Your task to perform on an android device: delete the emails in spam in the gmail app Image 0: 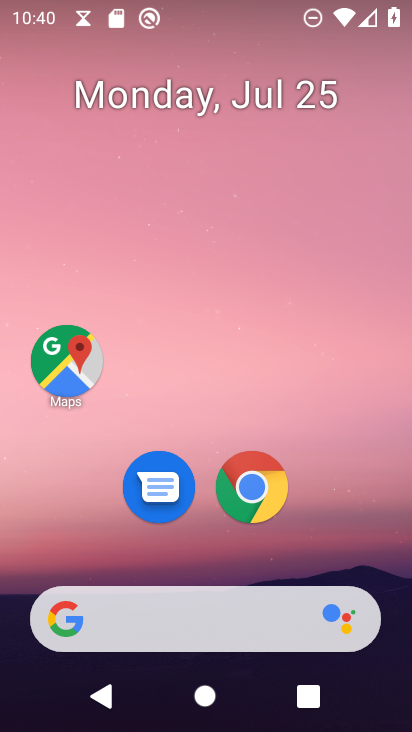
Step 0: drag from (206, 555) to (253, 8)
Your task to perform on an android device: delete the emails in spam in the gmail app Image 1: 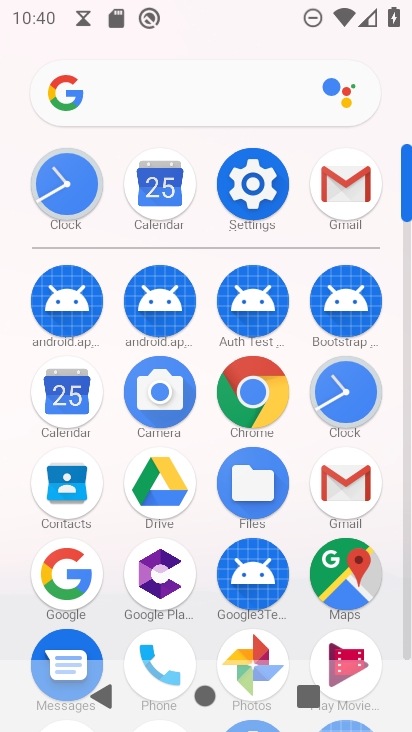
Step 1: click (347, 173)
Your task to perform on an android device: delete the emails in spam in the gmail app Image 2: 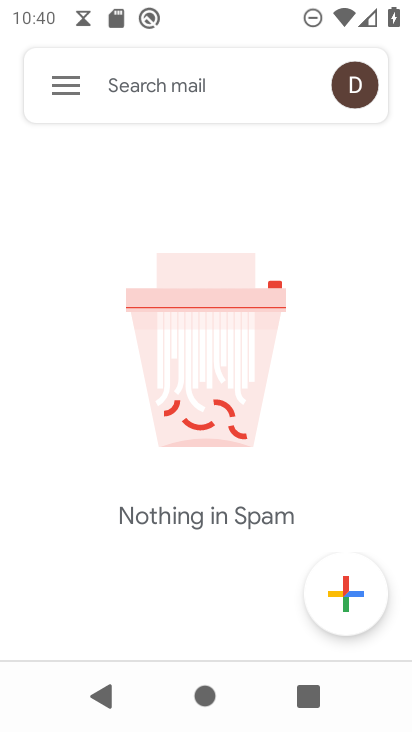
Step 2: click (61, 87)
Your task to perform on an android device: delete the emails in spam in the gmail app Image 3: 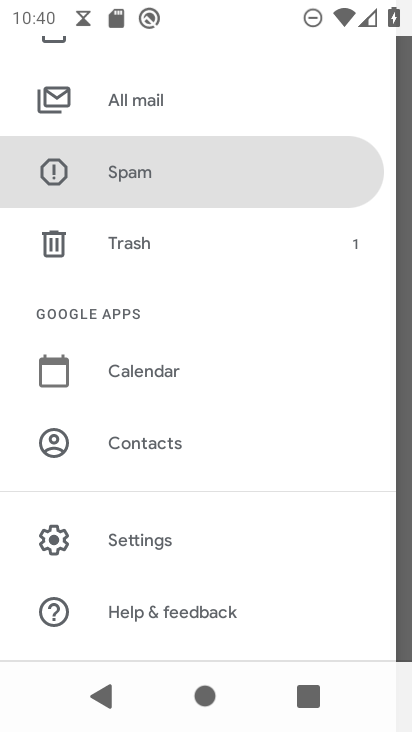
Step 3: click (131, 173)
Your task to perform on an android device: delete the emails in spam in the gmail app Image 4: 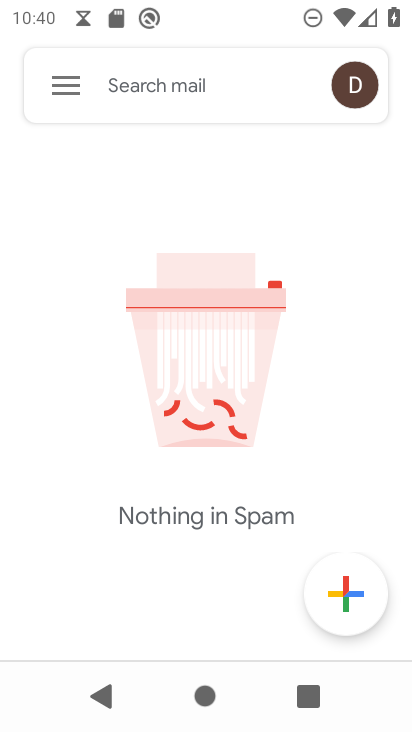
Step 4: task complete